Your task to perform on an android device: Search for Italian restaurants on Maps Image 0: 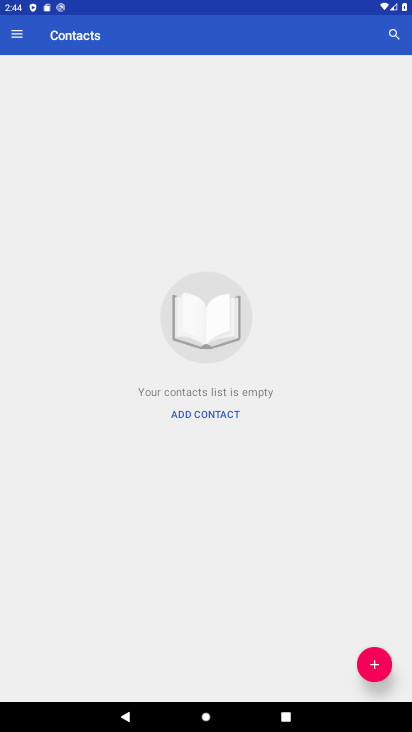
Step 0: press home button
Your task to perform on an android device: Search for Italian restaurants on Maps Image 1: 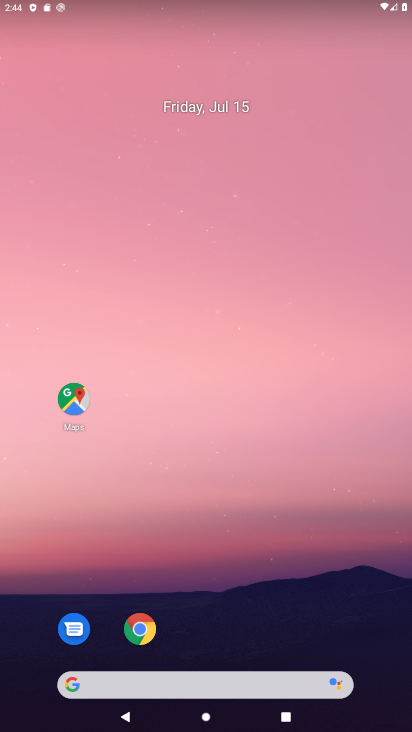
Step 1: drag from (207, 673) to (157, 39)
Your task to perform on an android device: Search for Italian restaurants on Maps Image 2: 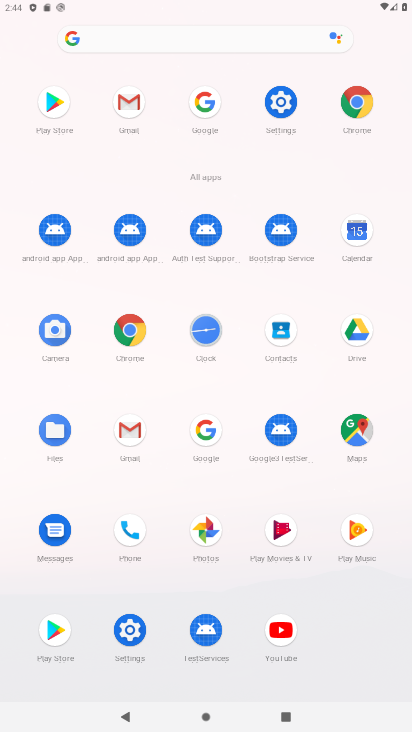
Step 2: click (355, 434)
Your task to perform on an android device: Search for Italian restaurants on Maps Image 3: 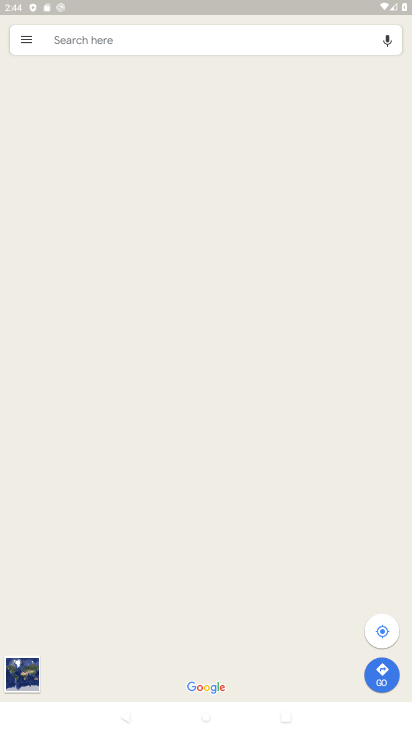
Step 3: click (113, 37)
Your task to perform on an android device: Search for Italian restaurants on Maps Image 4: 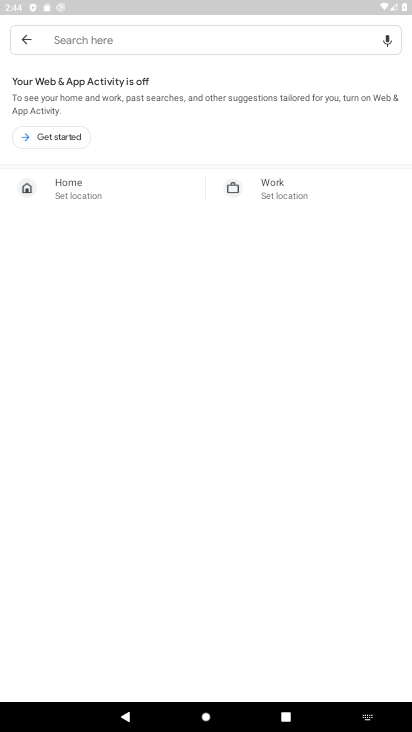
Step 4: click (74, 140)
Your task to perform on an android device: Search for Italian restaurants on Maps Image 5: 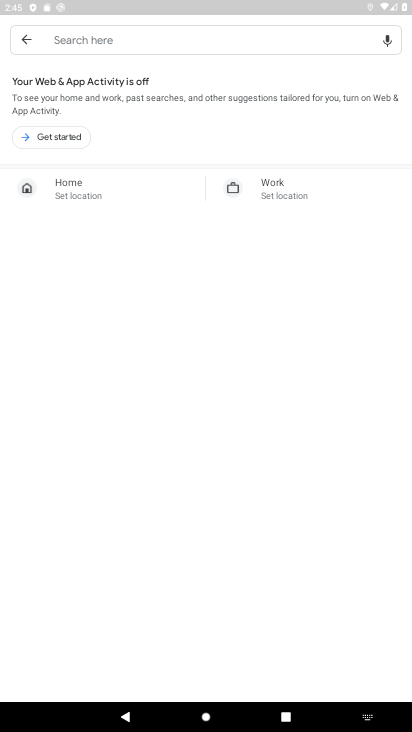
Step 5: click (64, 140)
Your task to perform on an android device: Search for Italian restaurants on Maps Image 6: 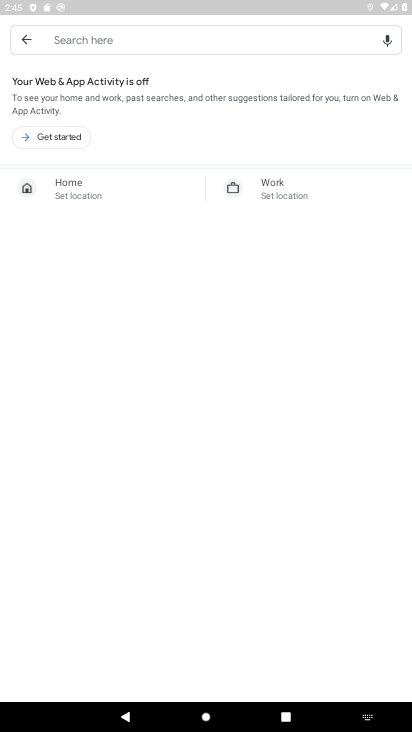
Step 6: click (63, 139)
Your task to perform on an android device: Search for Italian restaurants on Maps Image 7: 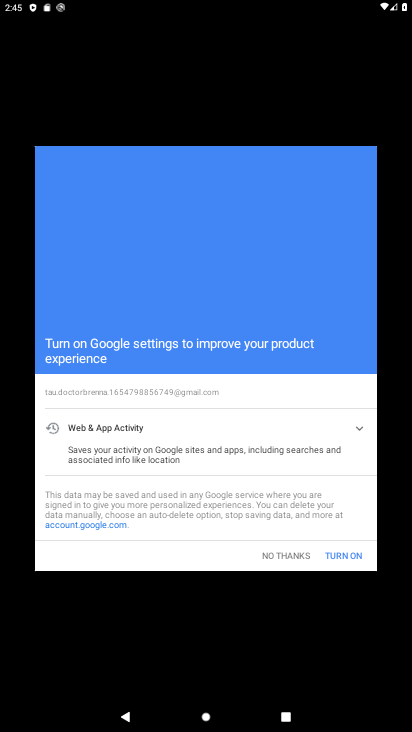
Step 7: click (345, 555)
Your task to perform on an android device: Search for Italian restaurants on Maps Image 8: 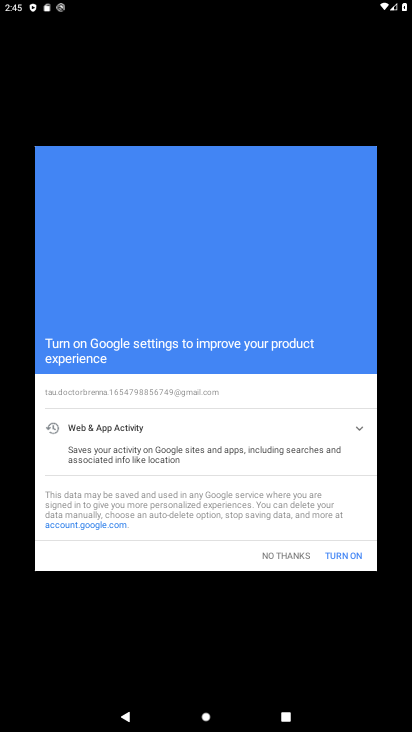
Step 8: click (349, 551)
Your task to perform on an android device: Search for Italian restaurants on Maps Image 9: 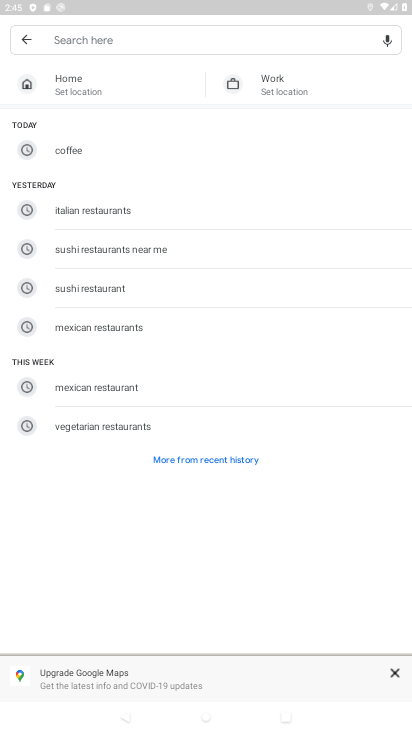
Step 9: click (92, 203)
Your task to perform on an android device: Search for Italian restaurants on Maps Image 10: 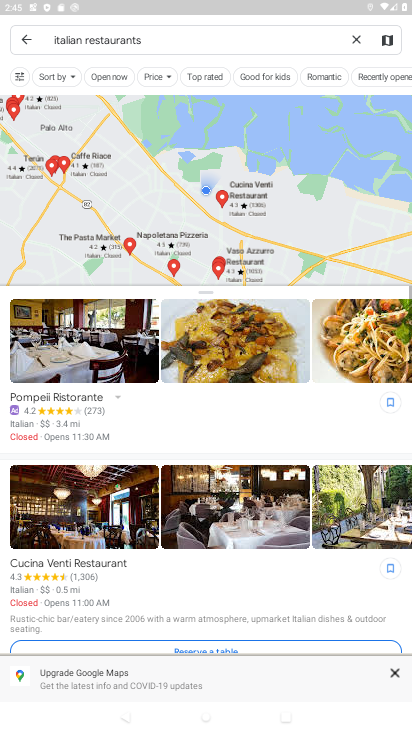
Step 10: task complete